Your task to perform on an android device: Show me the alarms in the clock app Image 0: 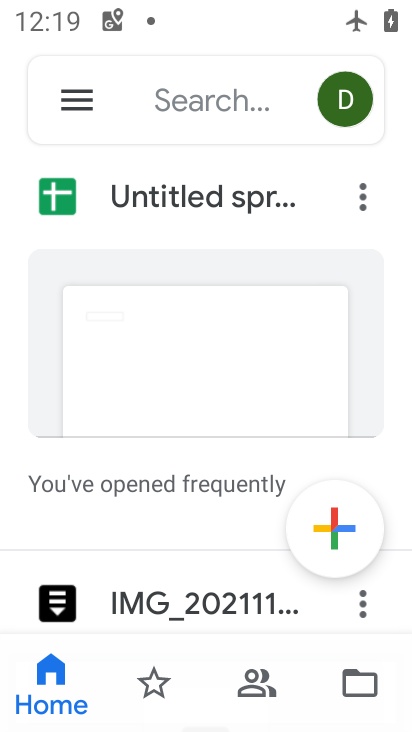
Step 0: press home button
Your task to perform on an android device: Show me the alarms in the clock app Image 1: 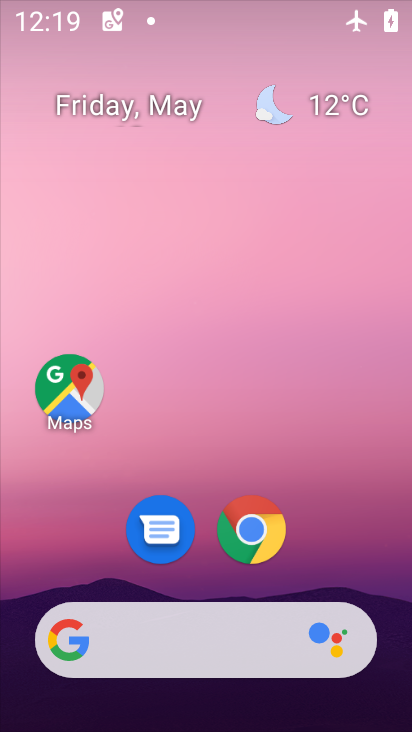
Step 1: drag from (333, 512) to (332, 295)
Your task to perform on an android device: Show me the alarms in the clock app Image 2: 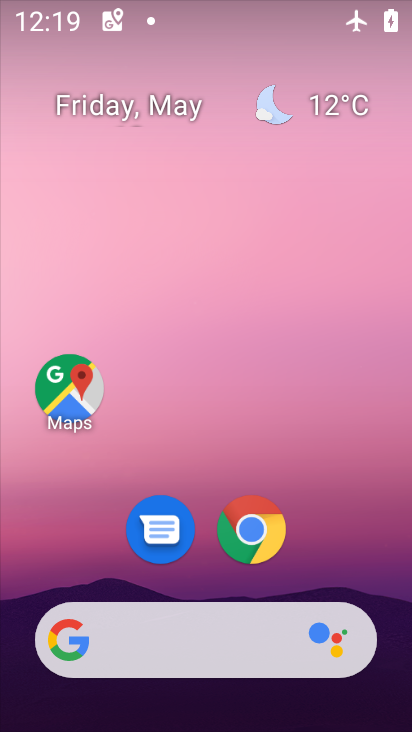
Step 2: drag from (269, 537) to (261, 325)
Your task to perform on an android device: Show me the alarms in the clock app Image 3: 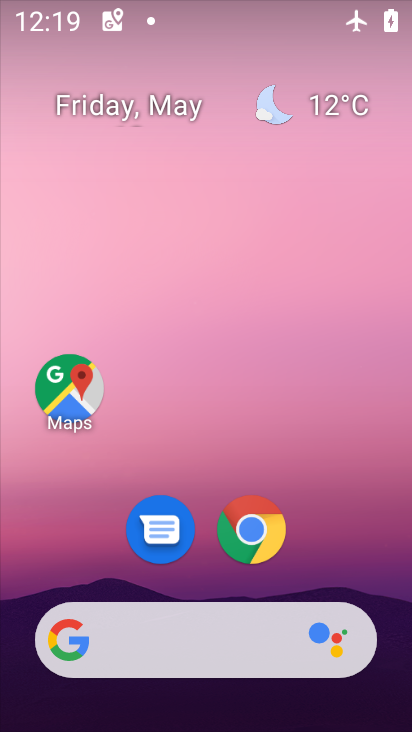
Step 3: drag from (261, 606) to (286, 335)
Your task to perform on an android device: Show me the alarms in the clock app Image 4: 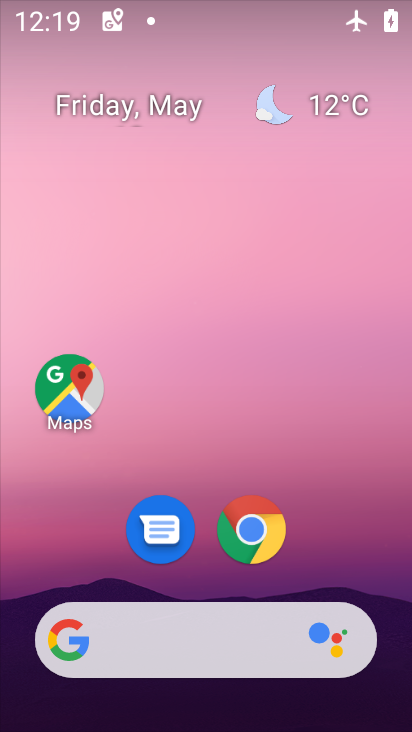
Step 4: drag from (239, 674) to (283, 174)
Your task to perform on an android device: Show me the alarms in the clock app Image 5: 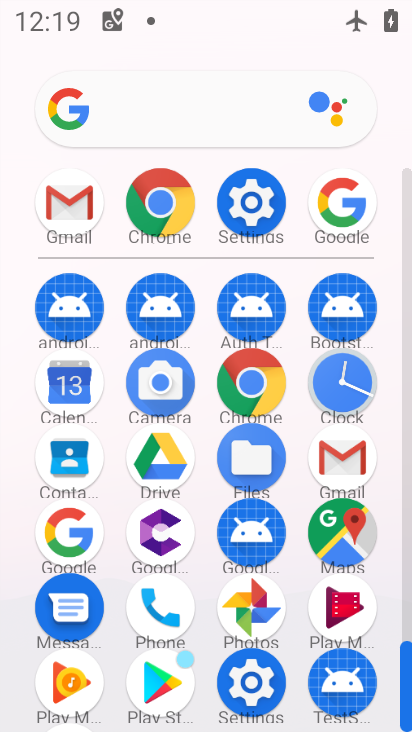
Step 5: click (335, 385)
Your task to perform on an android device: Show me the alarms in the clock app Image 6: 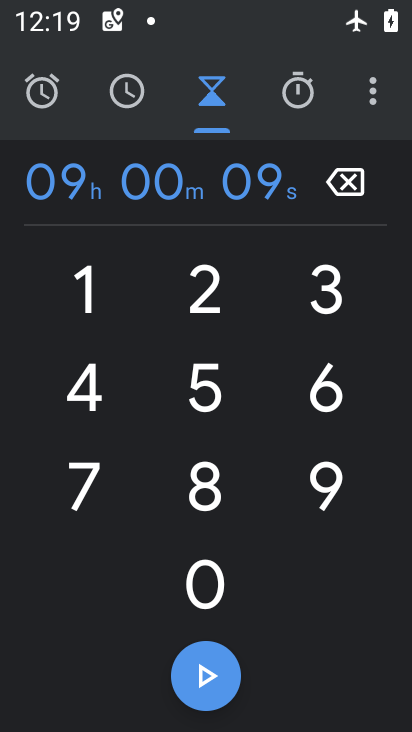
Step 6: click (353, 97)
Your task to perform on an android device: Show me the alarms in the clock app Image 7: 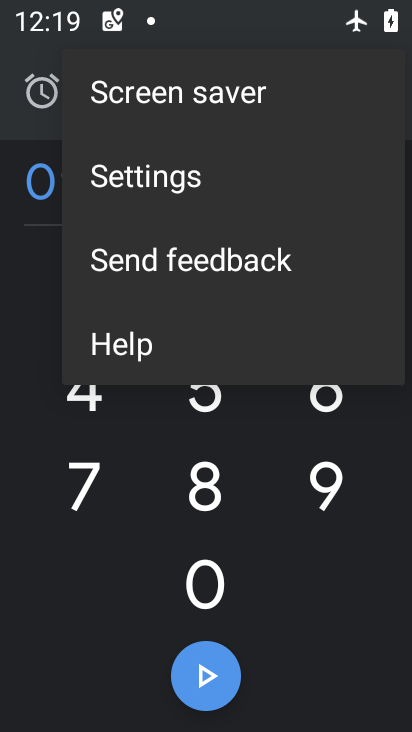
Step 7: click (182, 177)
Your task to perform on an android device: Show me the alarms in the clock app Image 8: 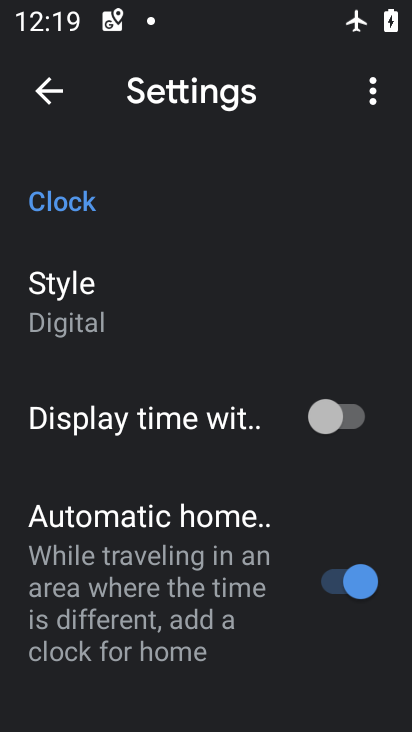
Step 8: press back button
Your task to perform on an android device: Show me the alarms in the clock app Image 9: 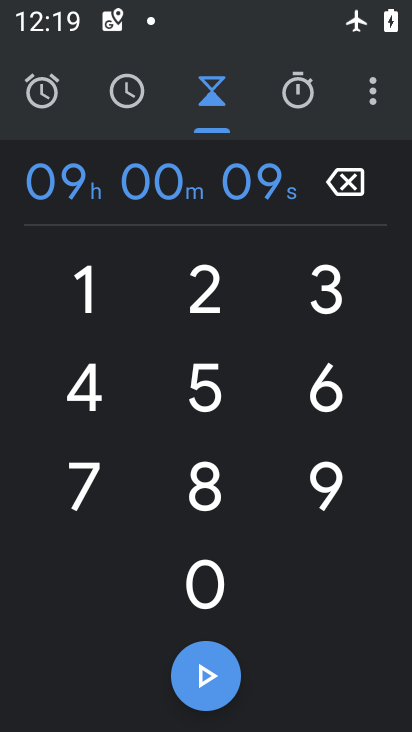
Step 9: click (45, 86)
Your task to perform on an android device: Show me the alarms in the clock app Image 10: 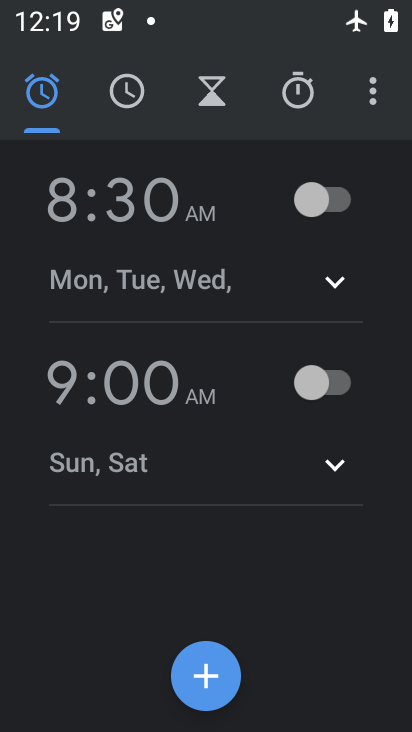
Step 10: click (319, 200)
Your task to perform on an android device: Show me the alarms in the clock app Image 11: 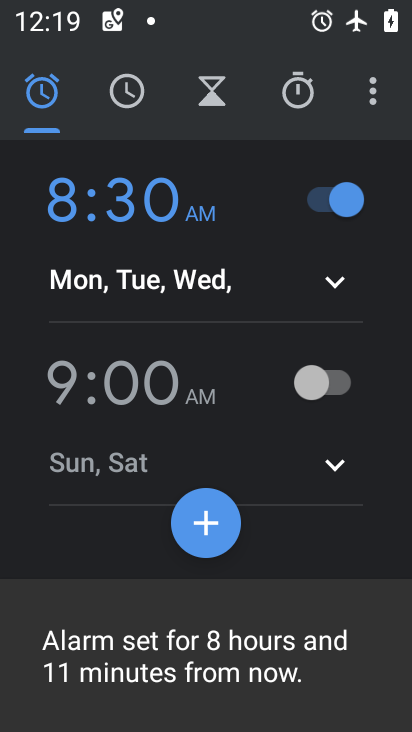
Step 11: click (315, 192)
Your task to perform on an android device: Show me the alarms in the clock app Image 12: 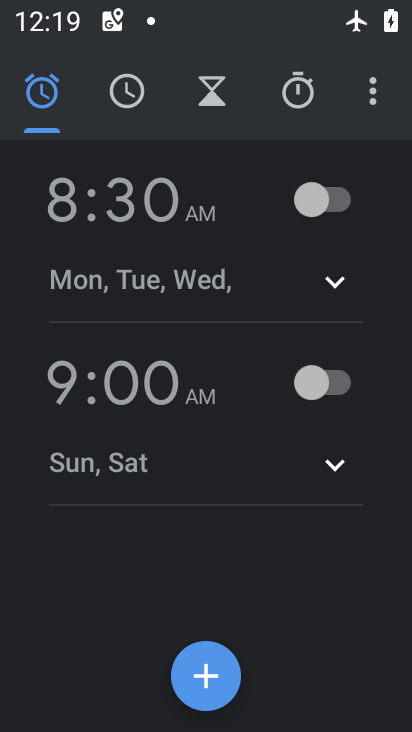
Step 12: task complete